Your task to perform on an android device: turn off airplane mode Image 0: 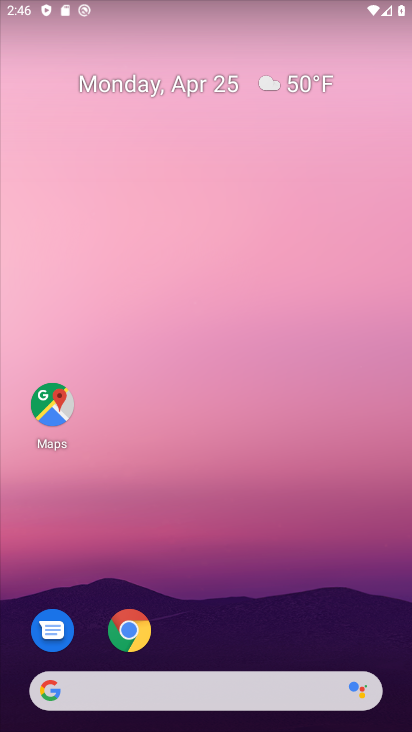
Step 0: drag from (182, 609) to (65, 87)
Your task to perform on an android device: turn off airplane mode Image 1: 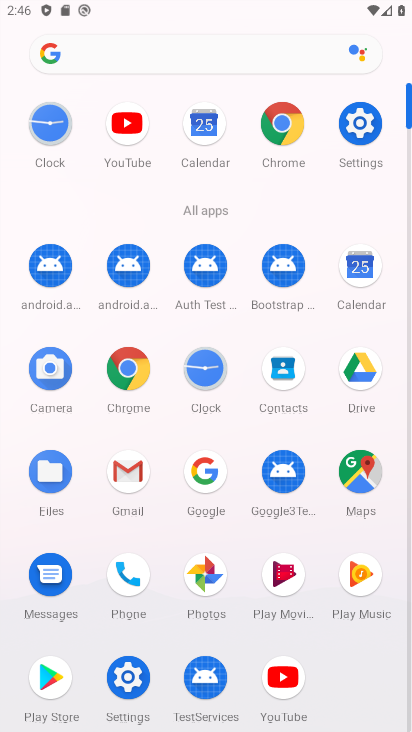
Step 1: click (355, 130)
Your task to perform on an android device: turn off airplane mode Image 2: 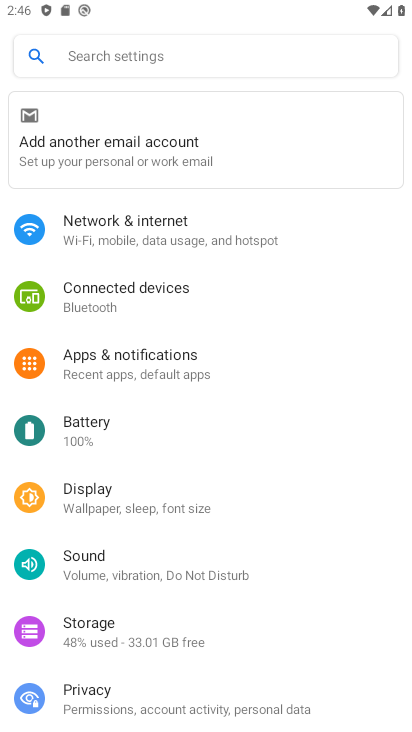
Step 2: click (128, 240)
Your task to perform on an android device: turn off airplane mode Image 3: 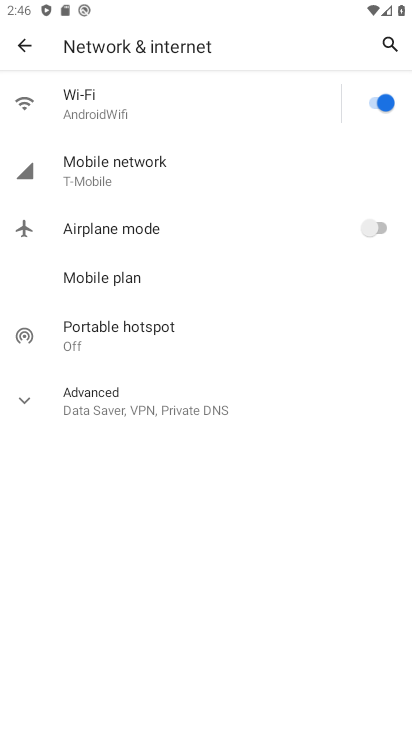
Step 3: task complete